Your task to perform on an android device: turn on the 24-hour format for clock Image 0: 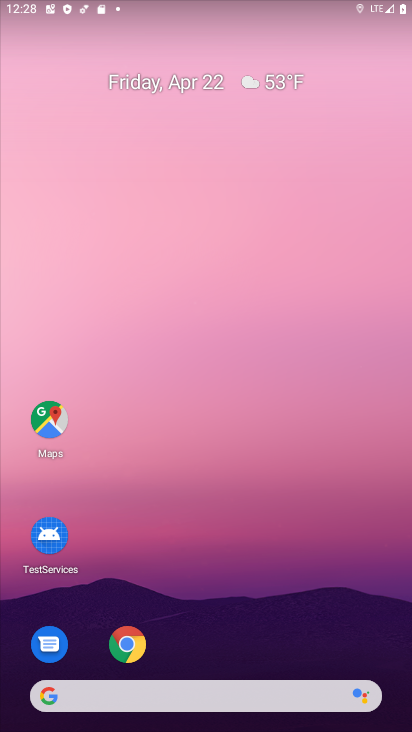
Step 0: drag from (303, 602) to (271, 148)
Your task to perform on an android device: turn on the 24-hour format for clock Image 1: 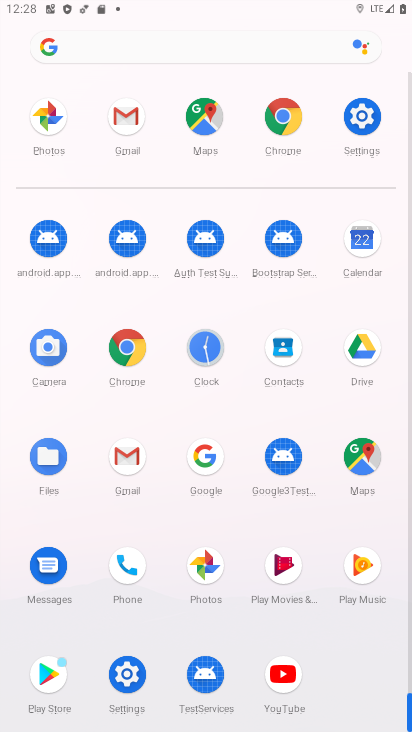
Step 1: click (204, 342)
Your task to perform on an android device: turn on the 24-hour format for clock Image 2: 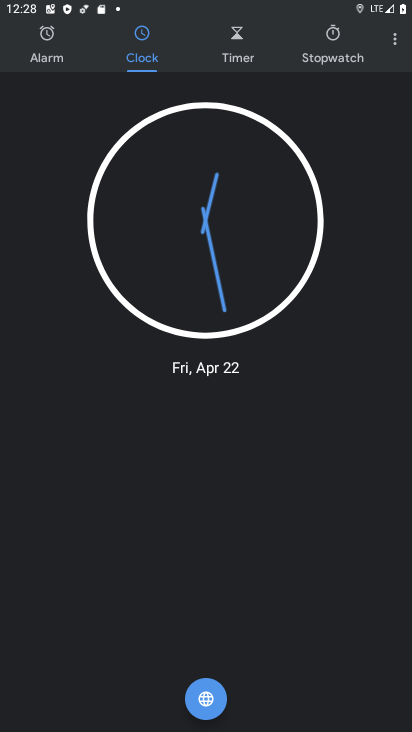
Step 2: click (394, 36)
Your task to perform on an android device: turn on the 24-hour format for clock Image 3: 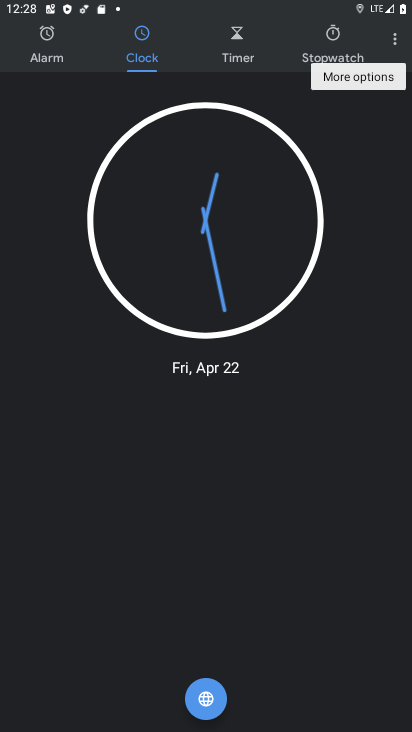
Step 3: click (401, 35)
Your task to perform on an android device: turn on the 24-hour format for clock Image 4: 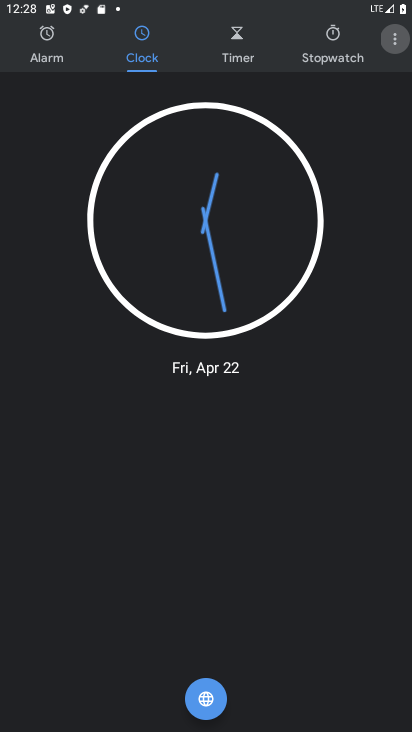
Step 4: click (366, 63)
Your task to perform on an android device: turn on the 24-hour format for clock Image 5: 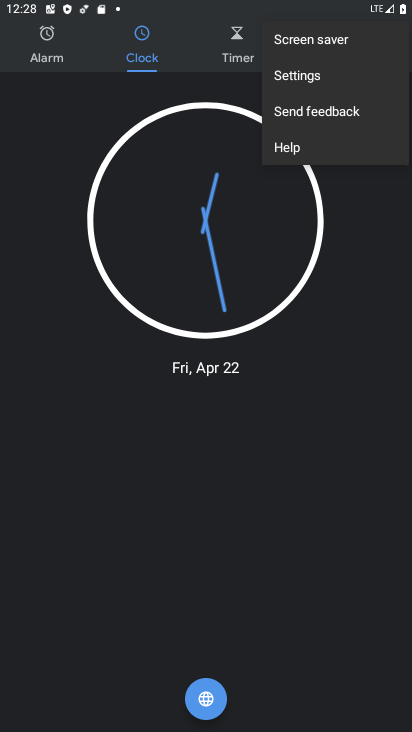
Step 5: click (327, 81)
Your task to perform on an android device: turn on the 24-hour format for clock Image 6: 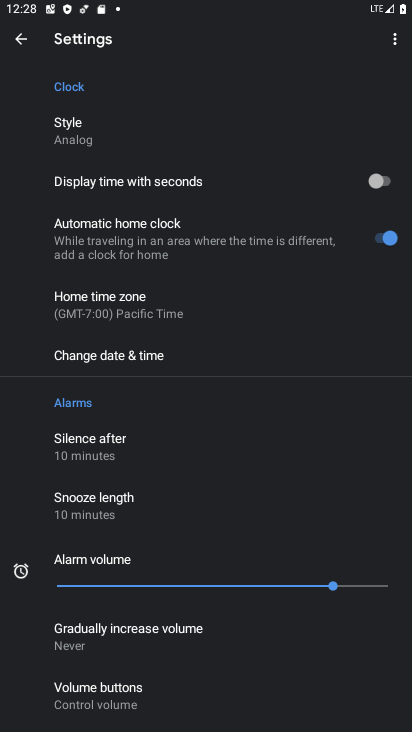
Step 6: click (147, 355)
Your task to perform on an android device: turn on the 24-hour format for clock Image 7: 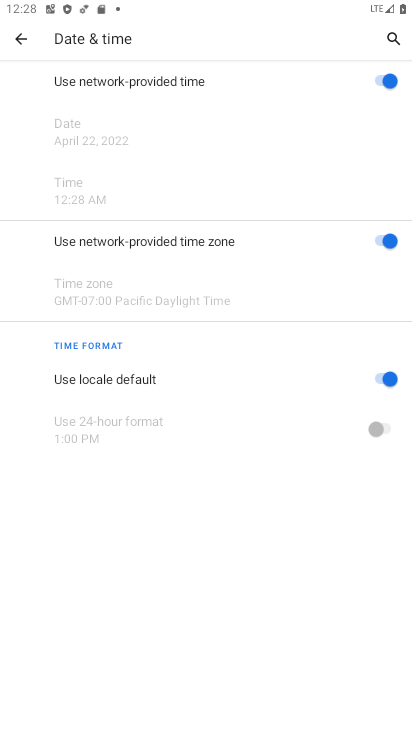
Step 7: click (333, 383)
Your task to perform on an android device: turn on the 24-hour format for clock Image 8: 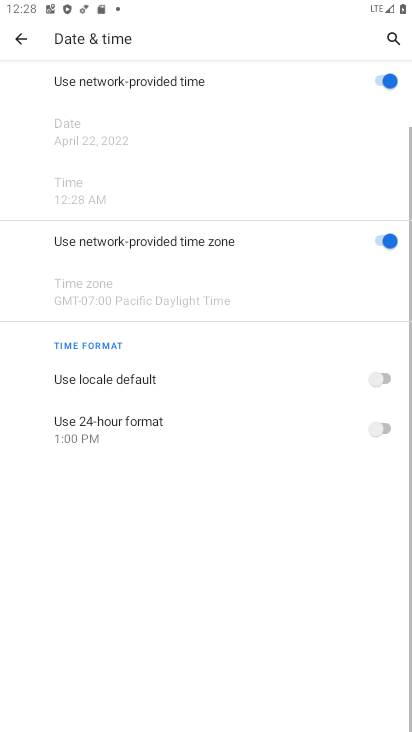
Step 8: click (381, 427)
Your task to perform on an android device: turn on the 24-hour format for clock Image 9: 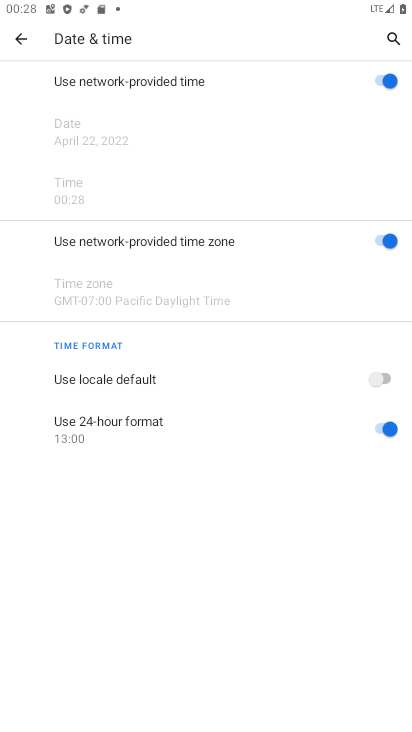
Step 9: task complete